Your task to perform on an android device: Search for seafood restaurants on Google Maps Image 0: 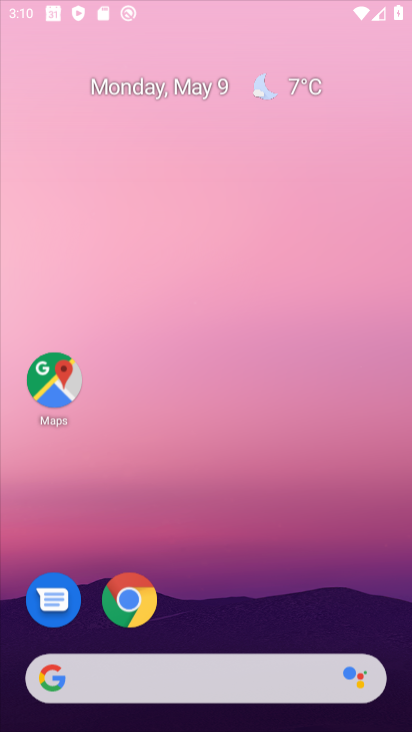
Step 0: click (338, 36)
Your task to perform on an android device: Search for seafood restaurants on Google Maps Image 1: 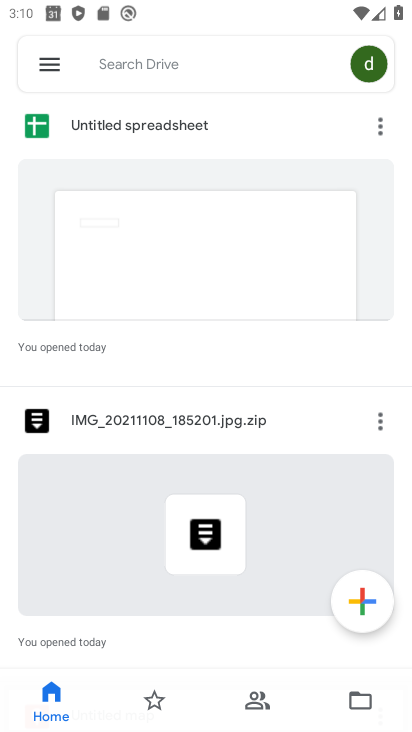
Step 1: press back button
Your task to perform on an android device: Search for seafood restaurants on Google Maps Image 2: 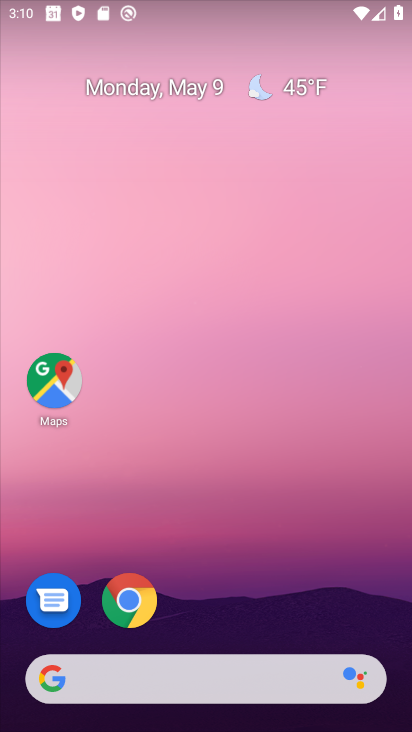
Step 2: drag from (348, 604) to (331, 12)
Your task to perform on an android device: Search for seafood restaurants on Google Maps Image 3: 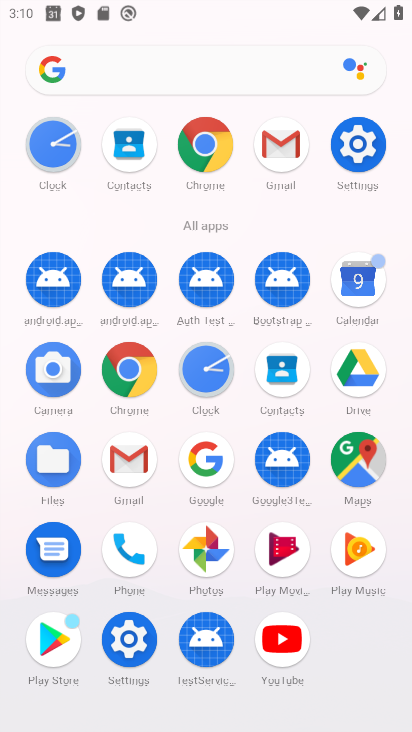
Step 3: click (353, 452)
Your task to perform on an android device: Search for seafood restaurants on Google Maps Image 4: 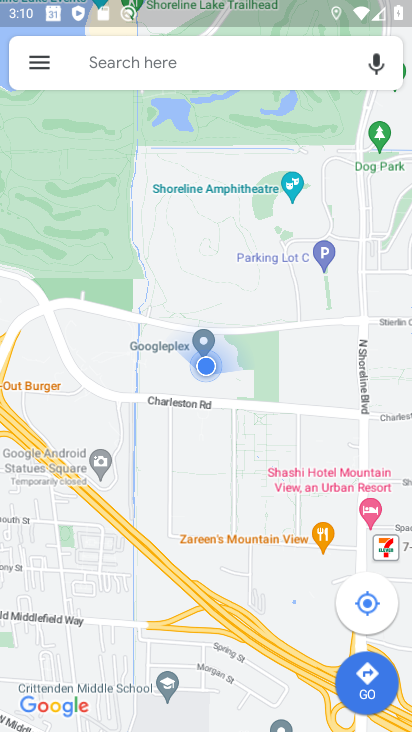
Step 4: click (247, 58)
Your task to perform on an android device: Search for seafood restaurants on Google Maps Image 5: 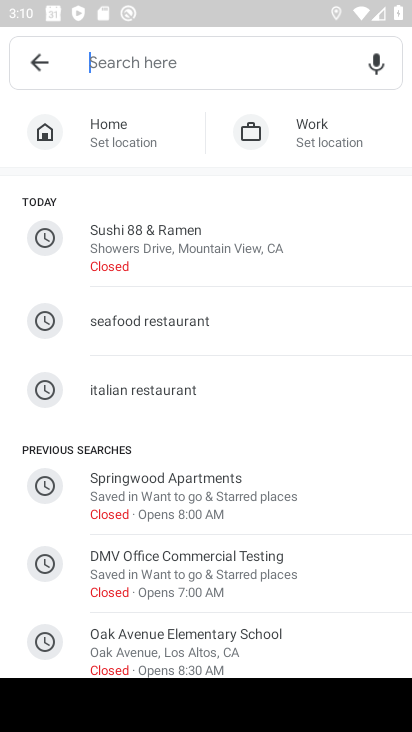
Step 5: click (197, 325)
Your task to perform on an android device: Search for seafood restaurants on Google Maps Image 6: 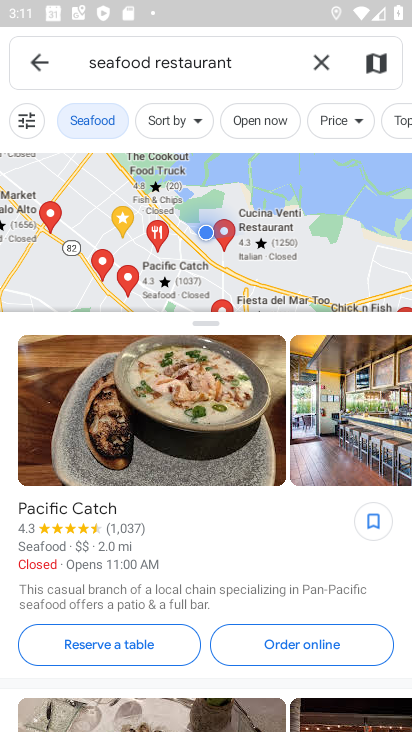
Step 6: task complete